Your task to perform on an android device: Empty the shopping cart on ebay. Search for razer naga on ebay, select the first entry, add it to the cart, then select checkout. Image 0: 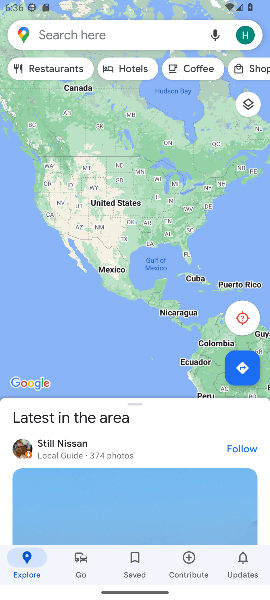
Step 0: press home button
Your task to perform on an android device: Empty the shopping cart on ebay. Search for razer naga on ebay, select the first entry, add it to the cart, then select checkout. Image 1: 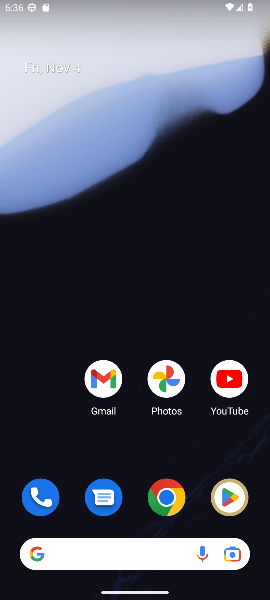
Step 1: click (172, 498)
Your task to perform on an android device: Empty the shopping cart on ebay. Search for razer naga on ebay, select the first entry, add it to the cart, then select checkout. Image 2: 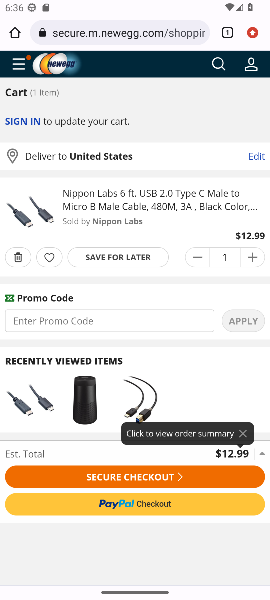
Step 2: click (110, 32)
Your task to perform on an android device: Empty the shopping cart on ebay. Search for razer naga on ebay, select the first entry, add it to the cart, then select checkout. Image 3: 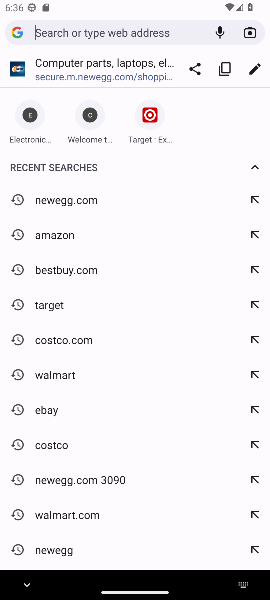
Step 3: click (58, 414)
Your task to perform on an android device: Empty the shopping cart on ebay. Search for razer naga on ebay, select the first entry, add it to the cart, then select checkout. Image 4: 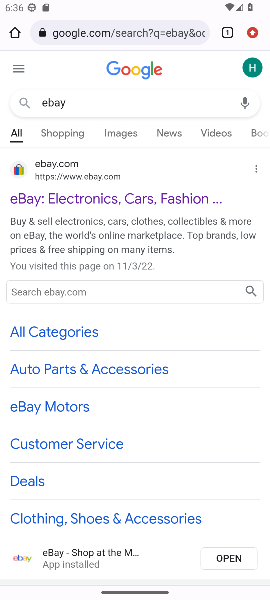
Step 4: click (64, 188)
Your task to perform on an android device: Empty the shopping cart on ebay. Search for razer naga on ebay, select the first entry, add it to the cart, then select checkout. Image 5: 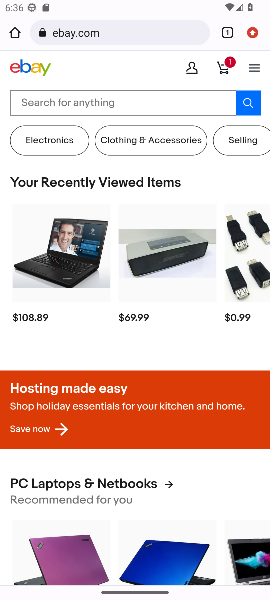
Step 5: click (231, 64)
Your task to perform on an android device: Empty the shopping cart on ebay. Search for razer naga on ebay, select the first entry, add it to the cart, then select checkout. Image 6: 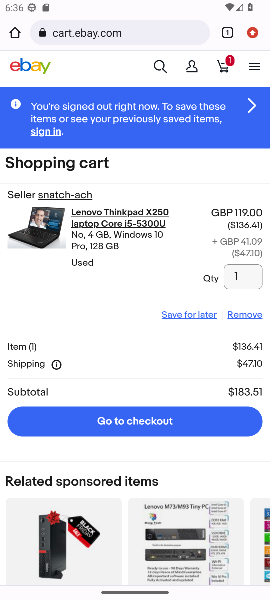
Step 6: click (248, 319)
Your task to perform on an android device: Empty the shopping cart on ebay. Search for razer naga on ebay, select the first entry, add it to the cart, then select checkout. Image 7: 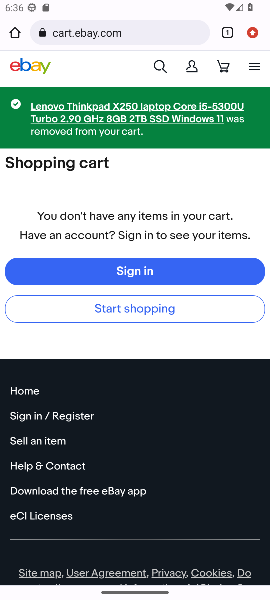
Step 7: click (157, 67)
Your task to perform on an android device: Empty the shopping cart on ebay. Search for razer naga on ebay, select the first entry, add it to the cart, then select checkout. Image 8: 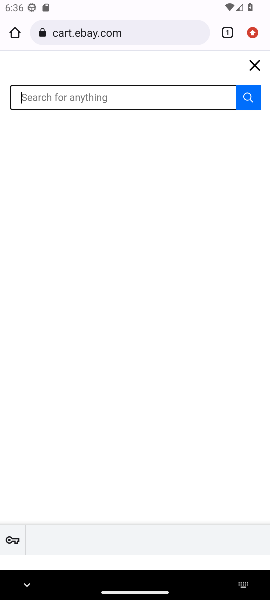
Step 8: type "razer naga"
Your task to perform on an android device: Empty the shopping cart on ebay. Search for razer naga on ebay, select the first entry, add it to the cart, then select checkout. Image 9: 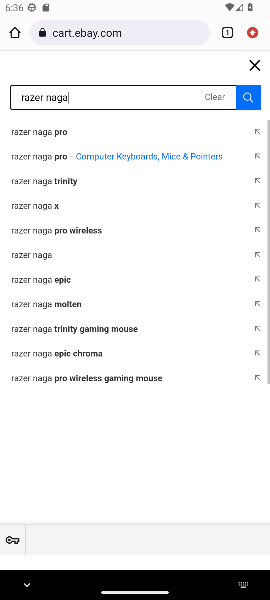
Step 9: click (35, 257)
Your task to perform on an android device: Empty the shopping cart on ebay. Search for razer naga on ebay, select the first entry, add it to the cart, then select checkout. Image 10: 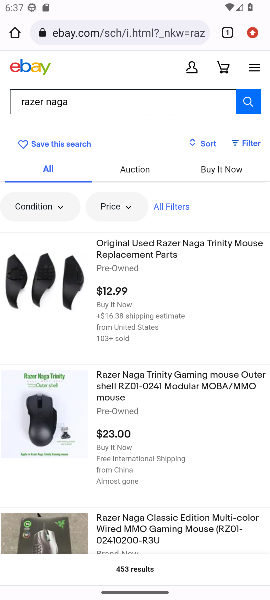
Step 10: click (68, 284)
Your task to perform on an android device: Empty the shopping cart on ebay. Search for razer naga on ebay, select the first entry, add it to the cart, then select checkout. Image 11: 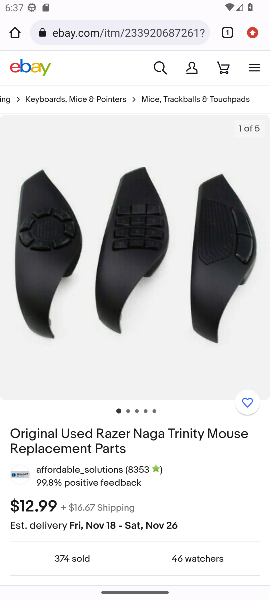
Step 11: drag from (141, 464) to (149, 214)
Your task to perform on an android device: Empty the shopping cart on ebay. Search for razer naga on ebay, select the first entry, add it to the cart, then select checkout. Image 12: 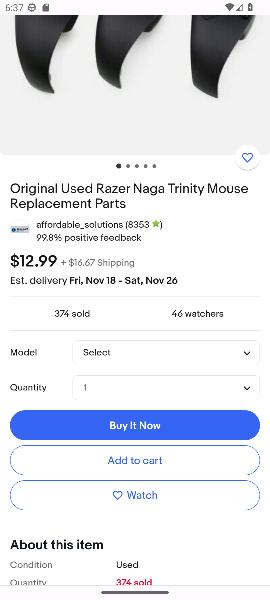
Step 12: click (146, 461)
Your task to perform on an android device: Empty the shopping cart on ebay. Search for razer naga on ebay, select the first entry, add it to the cart, then select checkout. Image 13: 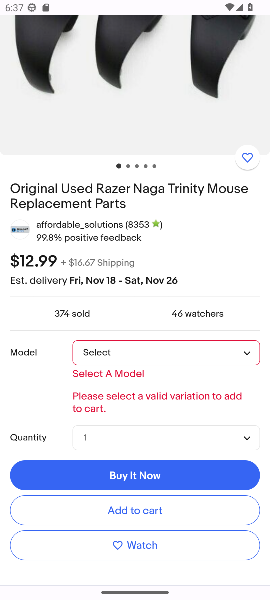
Step 13: click (253, 353)
Your task to perform on an android device: Empty the shopping cart on ebay. Search for razer naga on ebay, select the first entry, add it to the cart, then select checkout. Image 14: 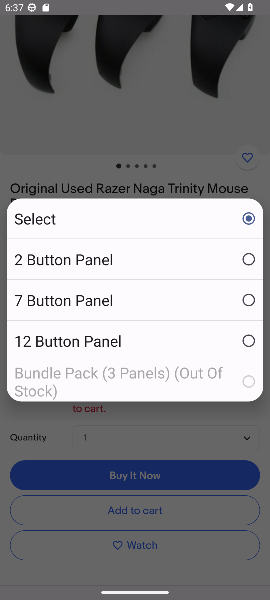
Step 14: click (59, 262)
Your task to perform on an android device: Empty the shopping cart on ebay. Search for razer naga on ebay, select the first entry, add it to the cart, then select checkout. Image 15: 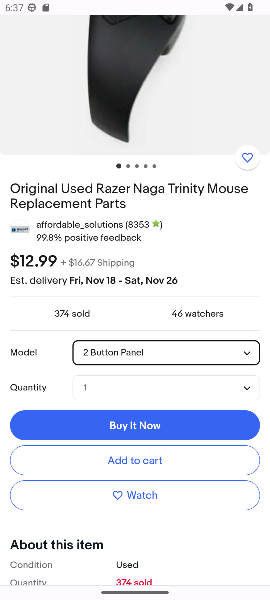
Step 15: click (126, 460)
Your task to perform on an android device: Empty the shopping cart on ebay. Search for razer naga on ebay, select the first entry, add it to the cart, then select checkout. Image 16: 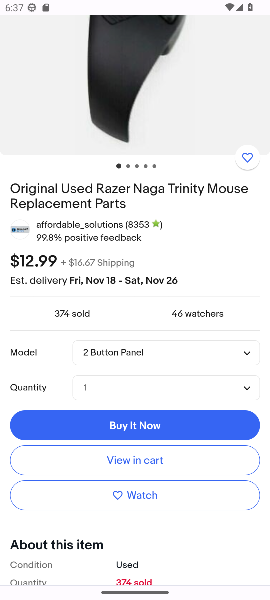
Step 16: click (126, 460)
Your task to perform on an android device: Empty the shopping cart on ebay. Search for razer naga on ebay, select the first entry, add it to the cart, then select checkout. Image 17: 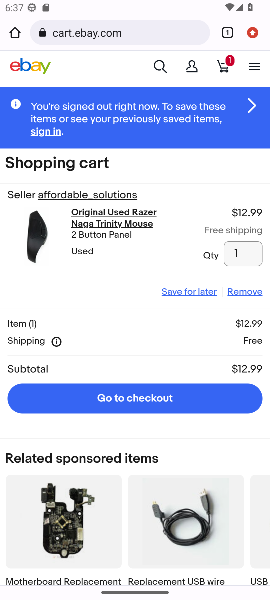
Step 17: click (134, 398)
Your task to perform on an android device: Empty the shopping cart on ebay. Search for razer naga on ebay, select the first entry, add it to the cart, then select checkout. Image 18: 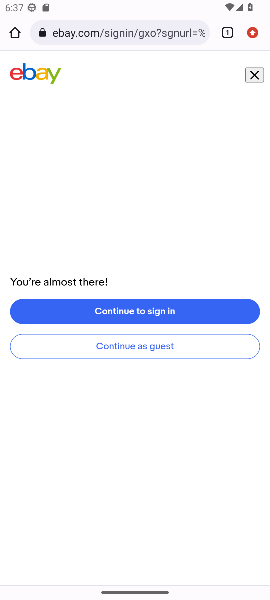
Step 18: task complete